Your task to perform on an android device: Go to settings Image 0: 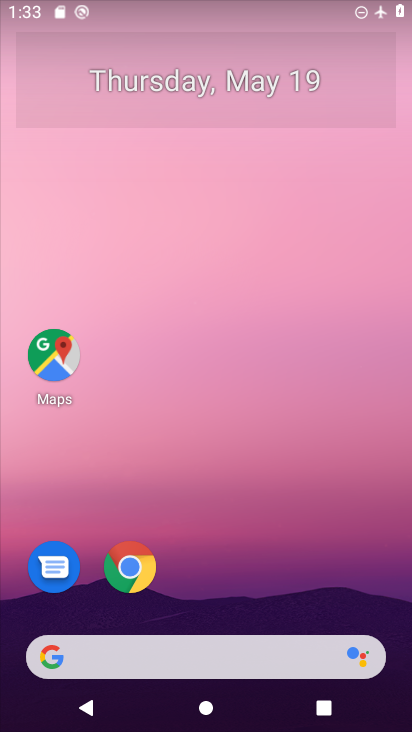
Step 0: drag from (277, 501) to (310, 37)
Your task to perform on an android device: Go to settings Image 1: 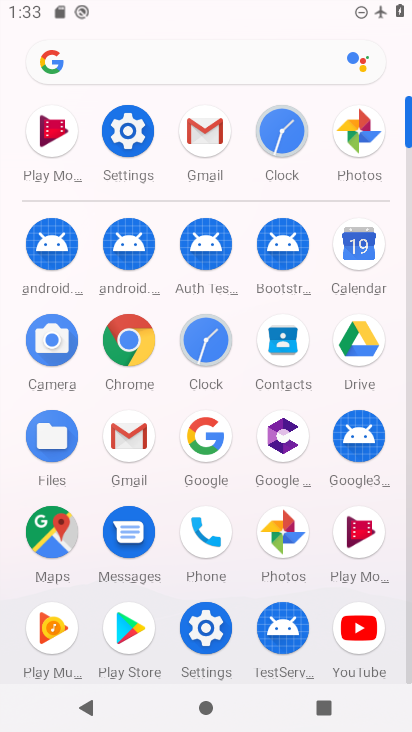
Step 1: click (136, 131)
Your task to perform on an android device: Go to settings Image 2: 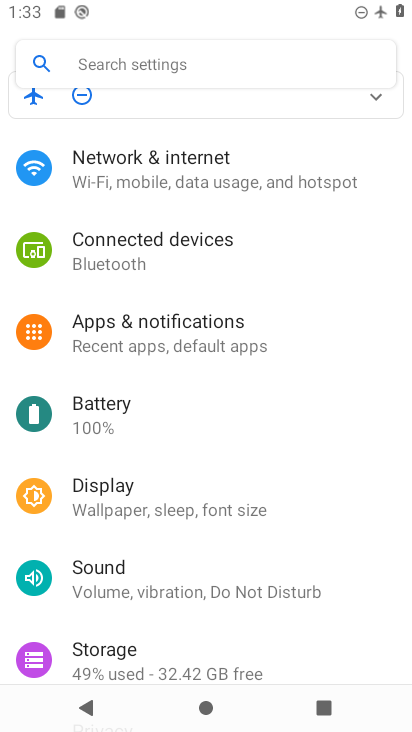
Step 2: task complete